Your task to perform on an android device: Search for pizza restaurants on Maps Image 0: 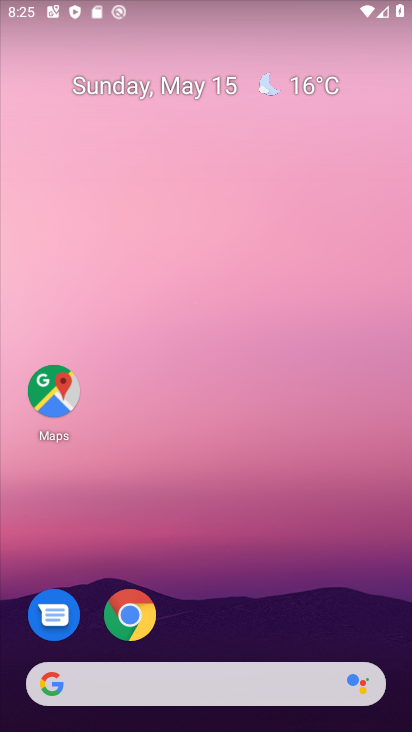
Step 0: click (39, 380)
Your task to perform on an android device: Search for pizza restaurants on Maps Image 1: 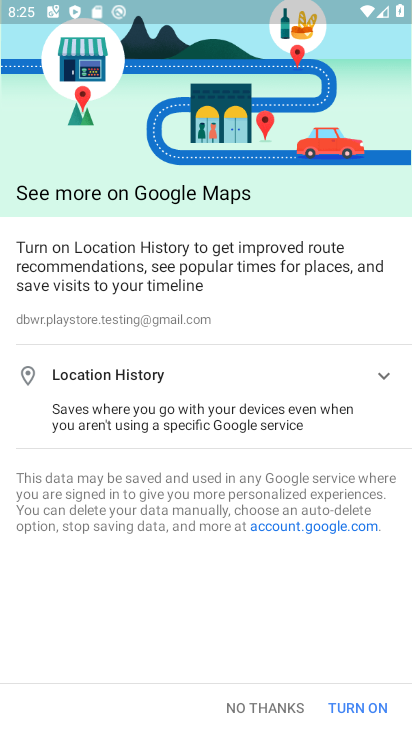
Step 1: click (281, 705)
Your task to perform on an android device: Search for pizza restaurants on Maps Image 2: 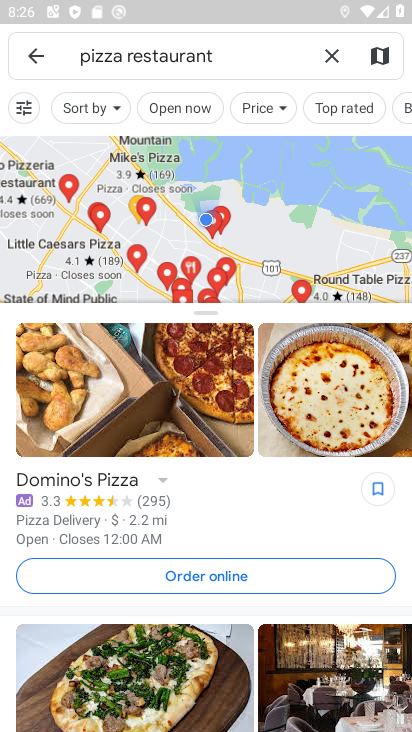
Step 2: task complete